Your task to perform on an android device: see creations saved in the google photos Image 0: 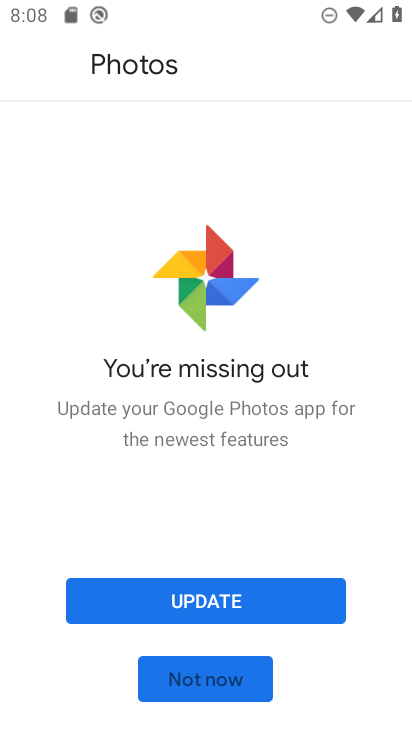
Step 0: click (240, 661)
Your task to perform on an android device: see creations saved in the google photos Image 1: 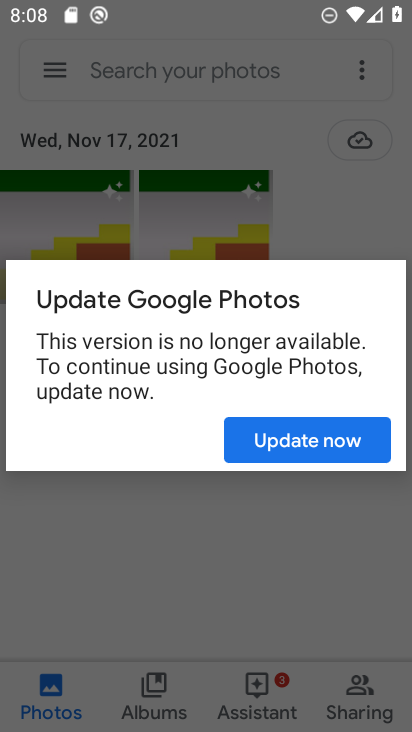
Step 1: click (217, 566)
Your task to perform on an android device: see creations saved in the google photos Image 2: 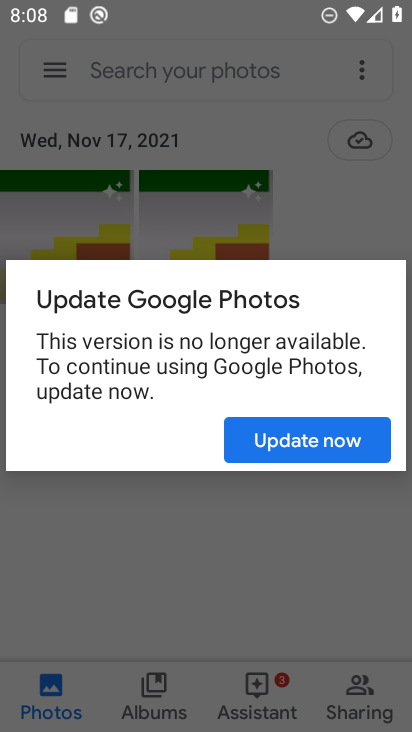
Step 2: click (171, 59)
Your task to perform on an android device: see creations saved in the google photos Image 3: 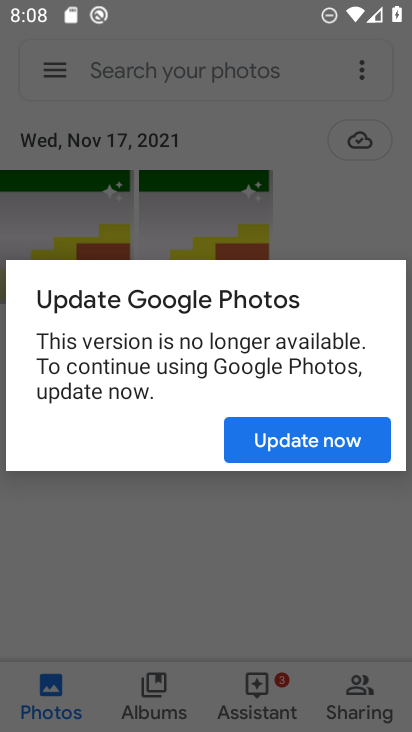
Step 3: click (301, 454)
Your task to perform on an android device: see creations saved in the google photos Image 4: 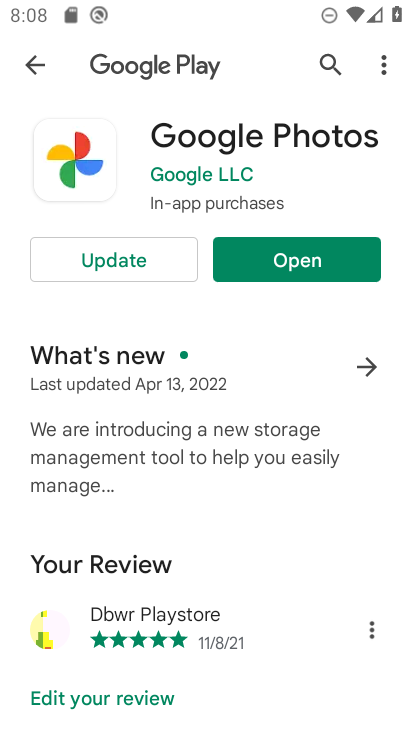
Step 4: click (255, 257)
Your task to perform on an android device: see creations saved in the google photos Image 5: 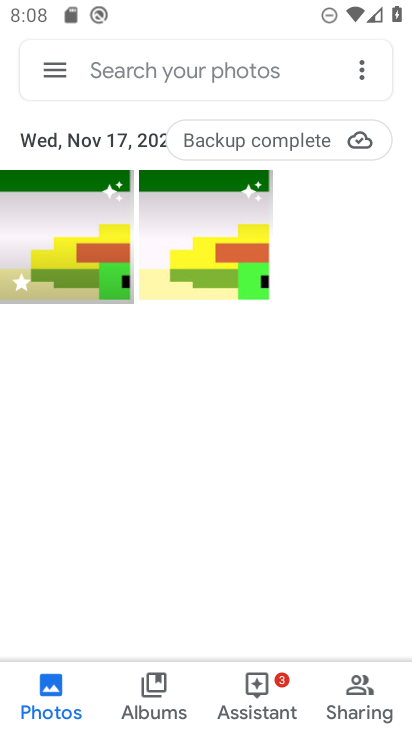
Step 5: click (191, 78)
Your task to perform on an android device: see creations saved in the google photos Image 6: 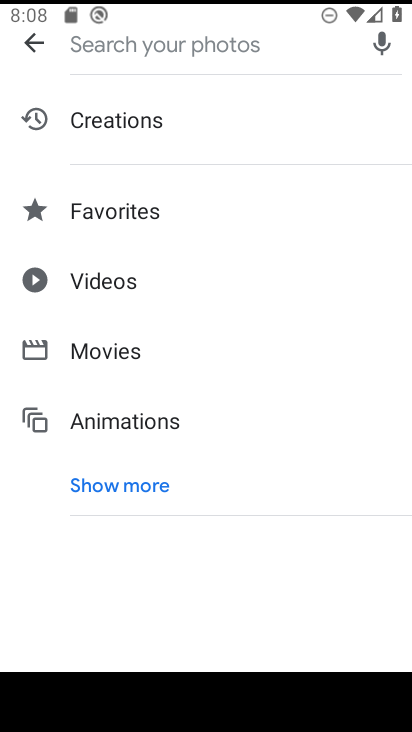
Step 6: click (163, 129)
Your task to perform on an android device: see creations saved in the google photos Image 7: 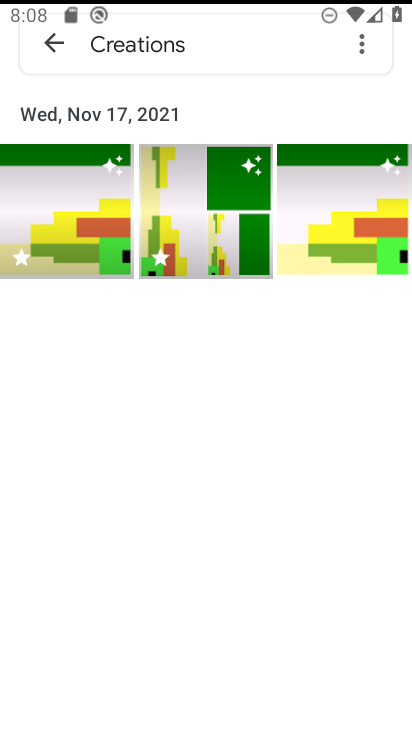
Step 7: task complete